Your task to perform on an android device: toggle show notifications on the lock screen Image 0: 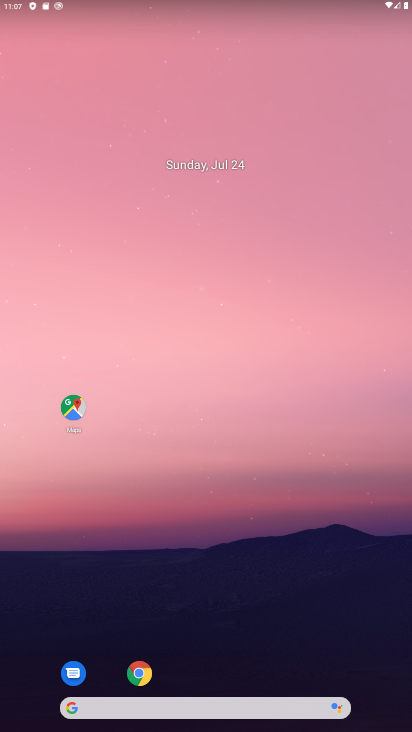
Step 0: drag from (301, 620) to (252, 96)
Your task to perform on an android device: toggle show notifications on the lock screen Image 1: 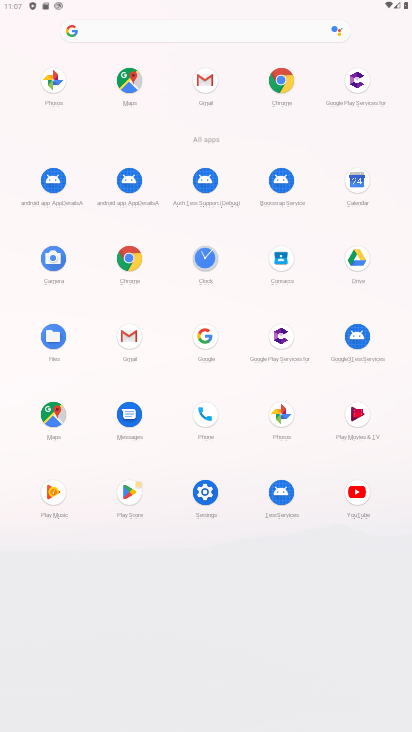
Step 1: click (212, 493)
Your task to perform on an android device: toggle show notifications on the lock screen Image 2: 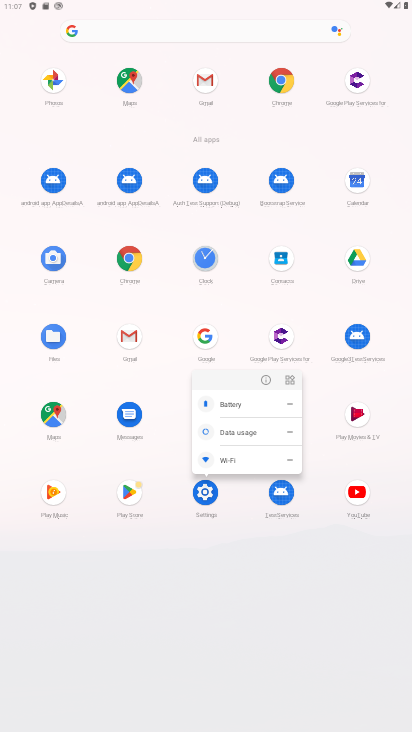
Step 2: click (205, 487)
Your task to perform on an android device: toggle show notifications on the lock screen Image 3: 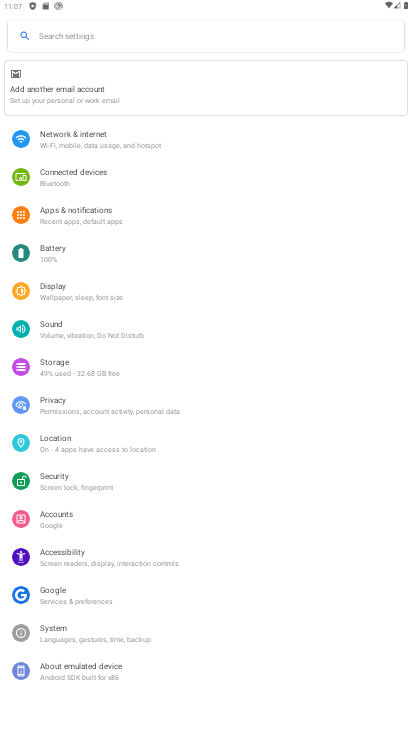
Step 3: click (106, 210)
Your task to perform on an android device: toggle show notifications on the lock screen Image 4: 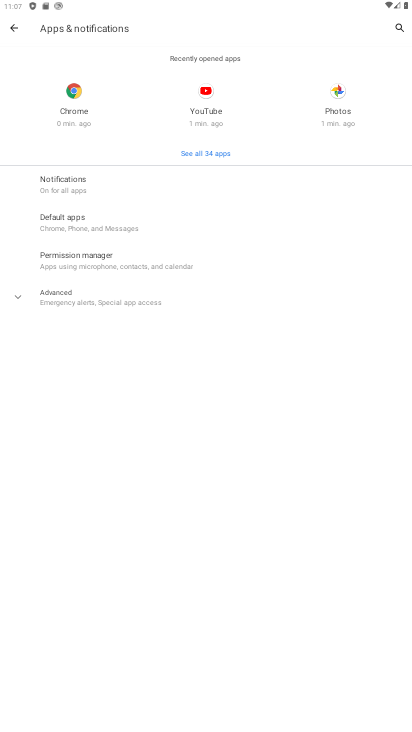
Step 4: click (76, 180)
Your task to perform on an android device: toggle show notifications on the lock screen Image 5: 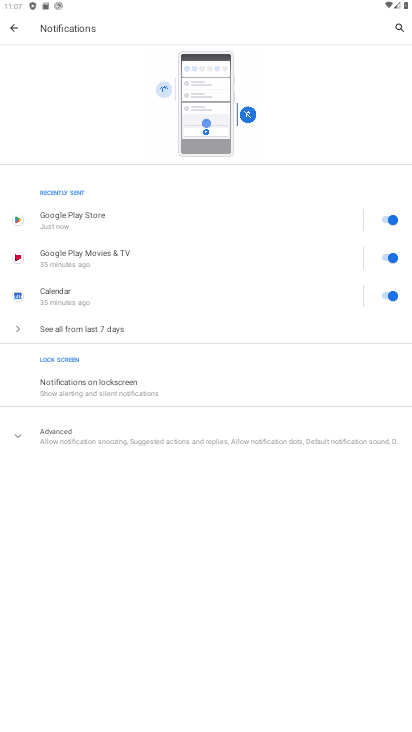
Step 5: click (156, 393)
Your task to perform on an android device: toggle show notifications on the lock screen Image 6: 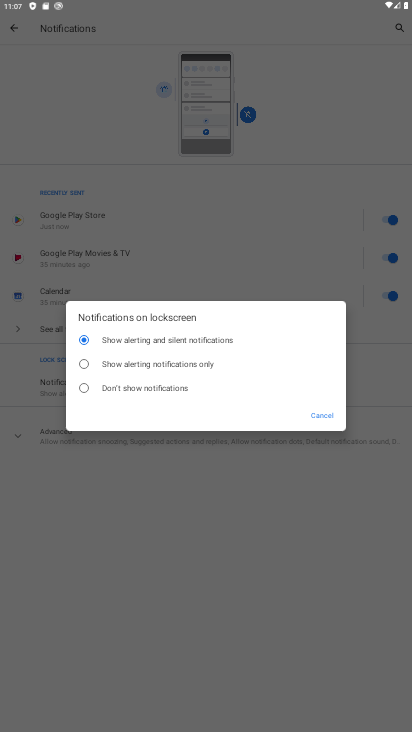
Step 6: click (206, 365)
Your task to perform on an android device: toggle show notifications on the lock screen Image 7: 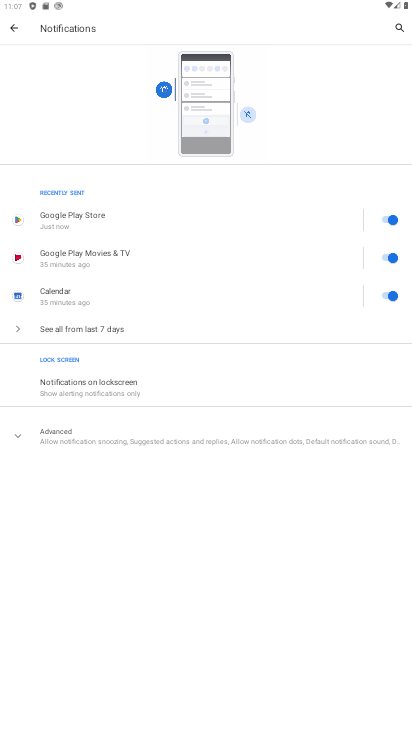
Step 7: task complete